Your task to perform on an android device: Add "logitech g910" to the cart on walmart, then select checkout. Image 0: 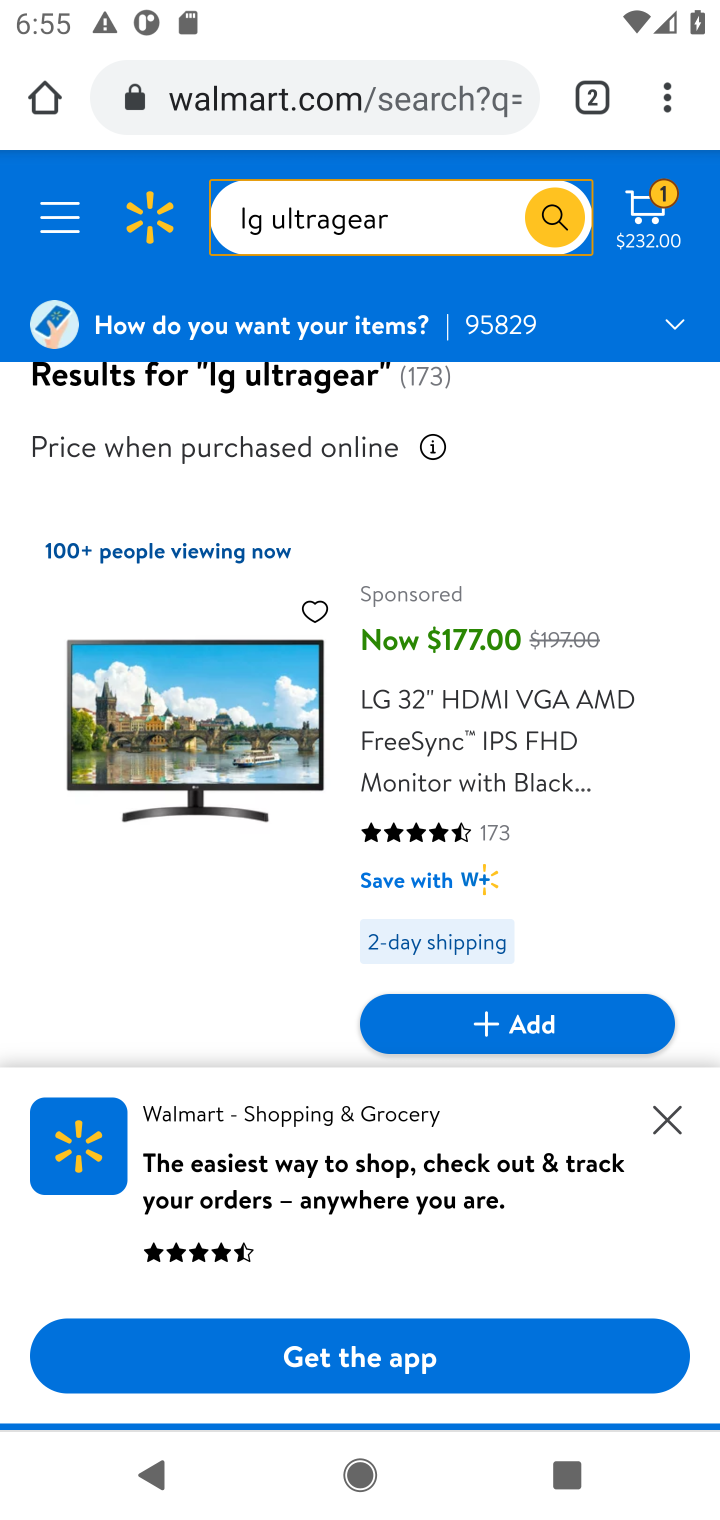
Step 0: click (386, 224)
Your task to perform on an android device: Add "logitech g910" to the cart on walmart, then select checkout. Image 1: 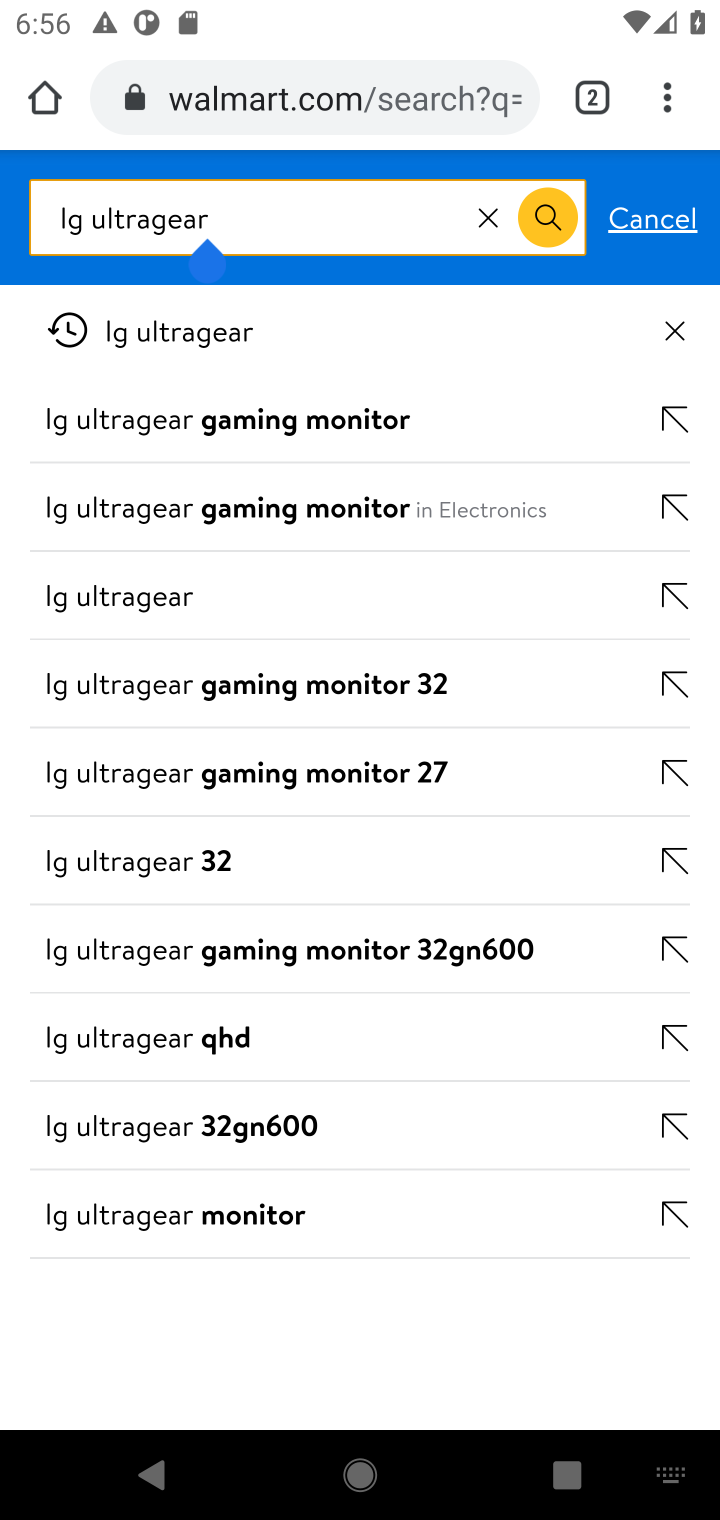
Step 1: click (485, 221)
Your task to perform on an android device: Add "logitech g910" to the cart on walmart, then select checkout. Image 2: 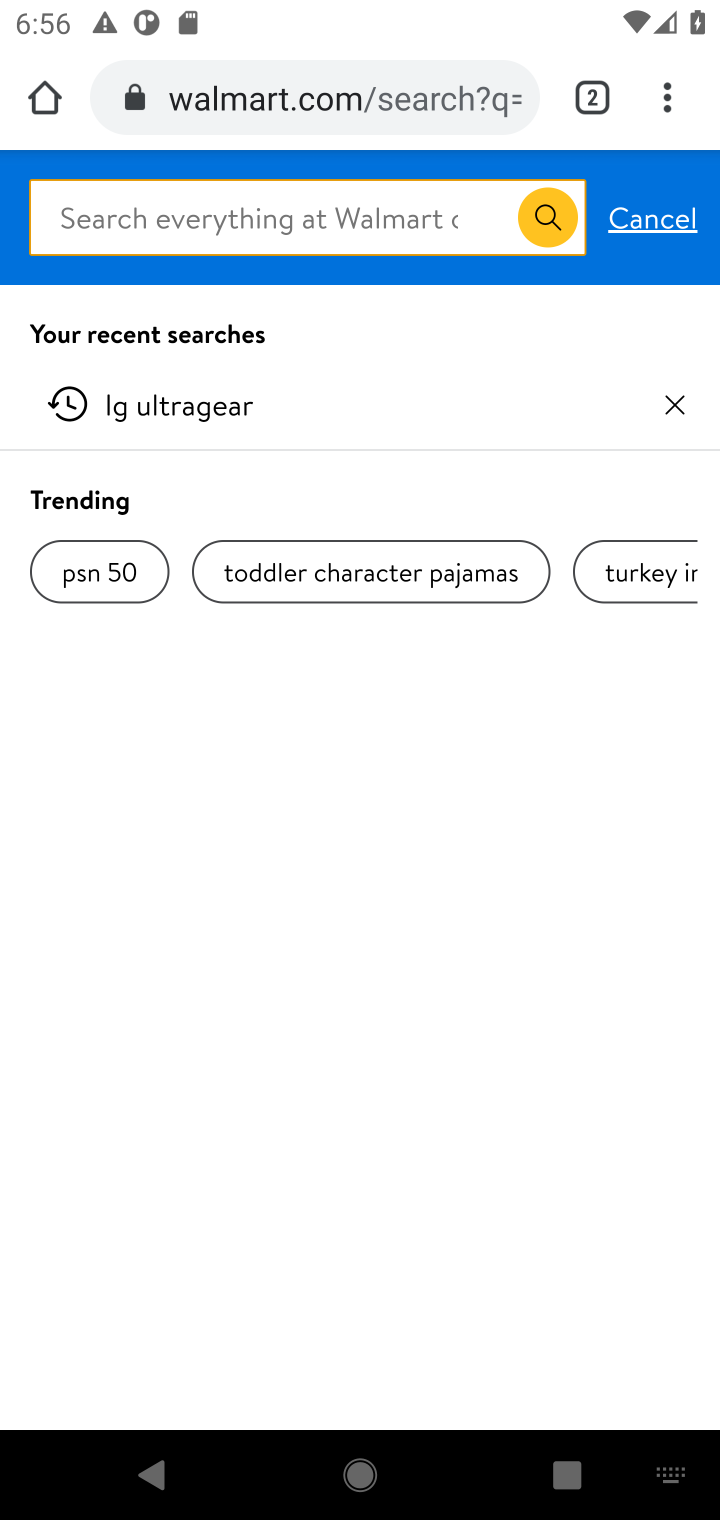
Step 2: type "logitech g910"
Your task to perform on an android device: Add "logitech g910" to the cart on walmart, then select checkout. Image 3: 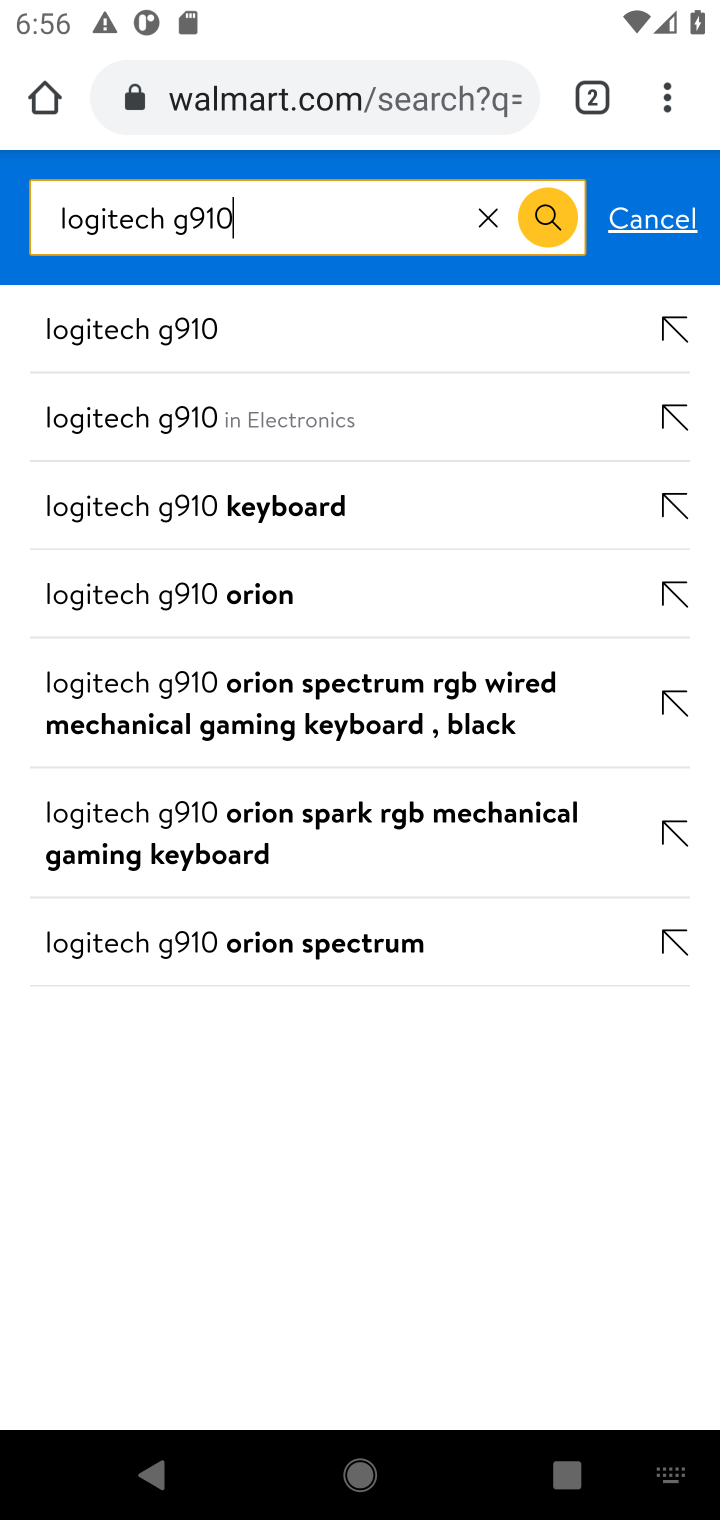
Step 3: click (98, 336)
Your task to perform on an android device: Add "logitech g910" to the cart on walmart, then select checkout. Image 4: 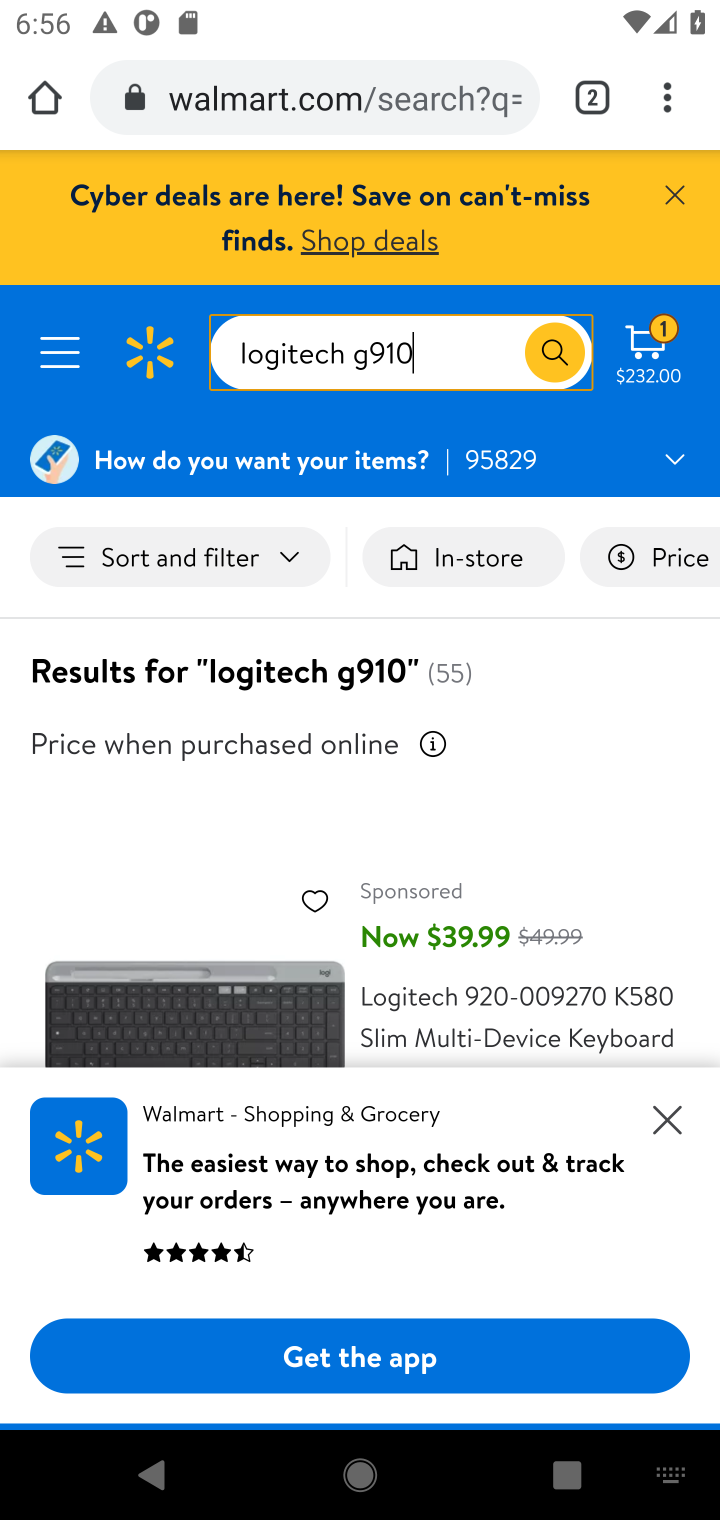
Step 4: drag from (189, 801) to (209, 361)
Your task to perform on an android device: Add "logitech g910" to the cart on walmart, then select checkout. Image 5: 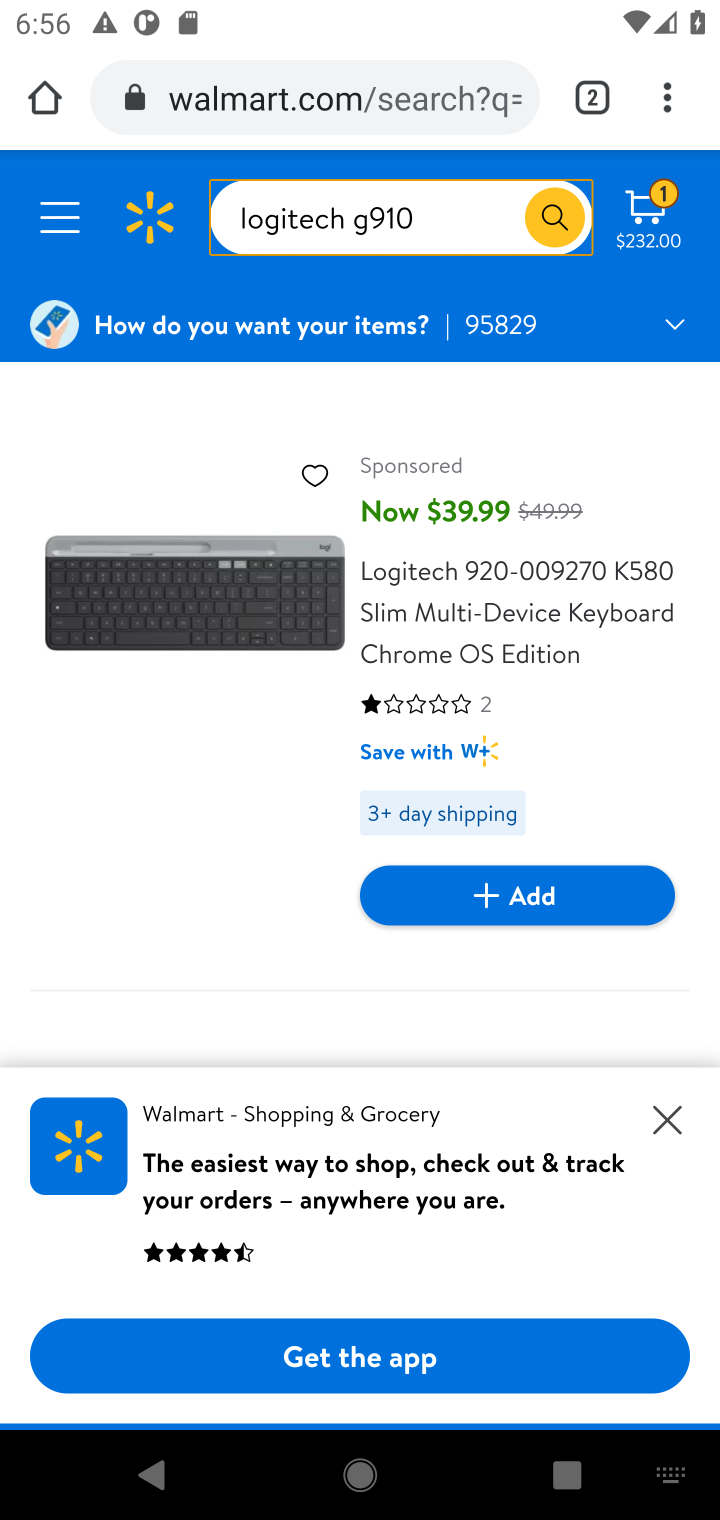
Step 5: drag from (284, 923) to (304, 422)
Your task to perform on an android device: Add "logitech g910" to the cart on walmart, then select checkout. Image 6: 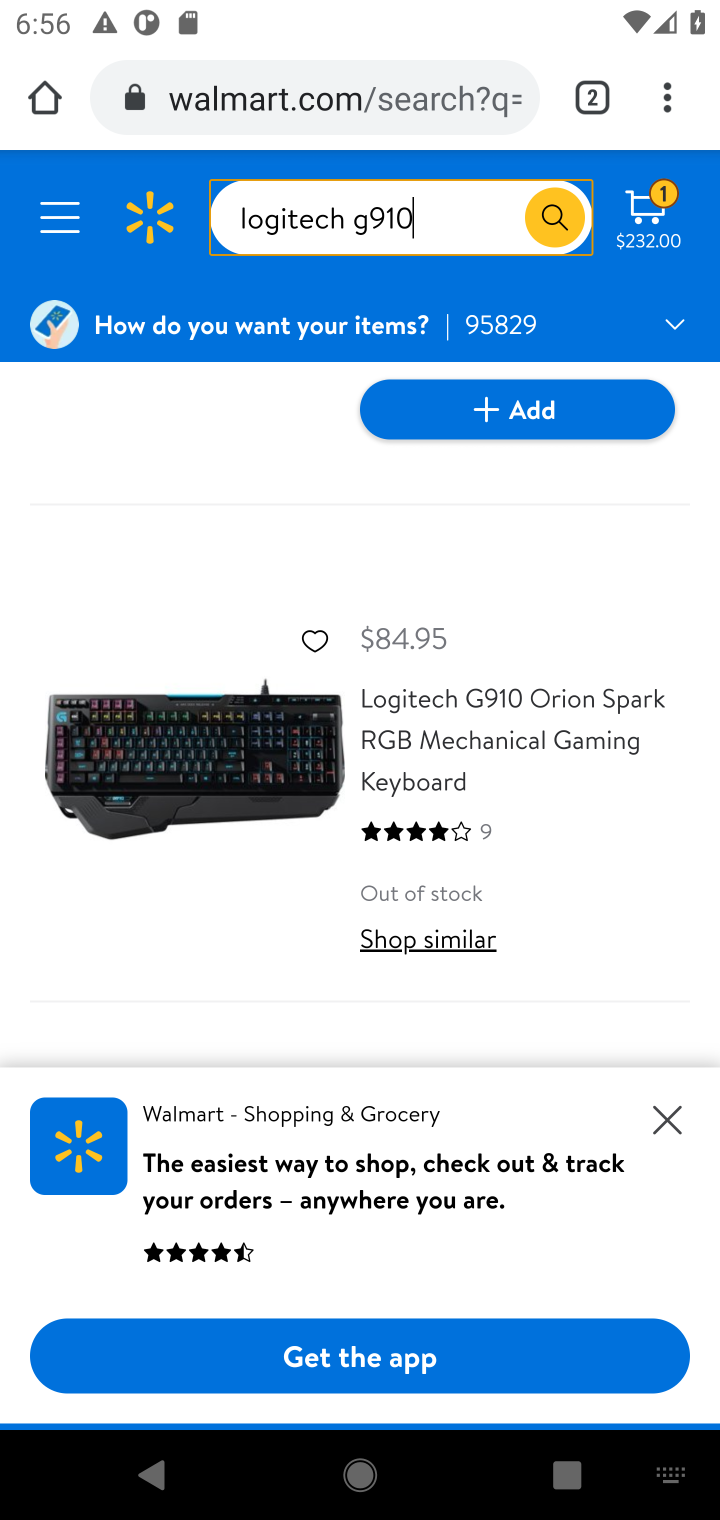
Step 6: drag from (253, 823) to (261, 636)
Your task to perform on an android device: Add "logitech g910" to the cart on walmart, then select checkout. Image 7: 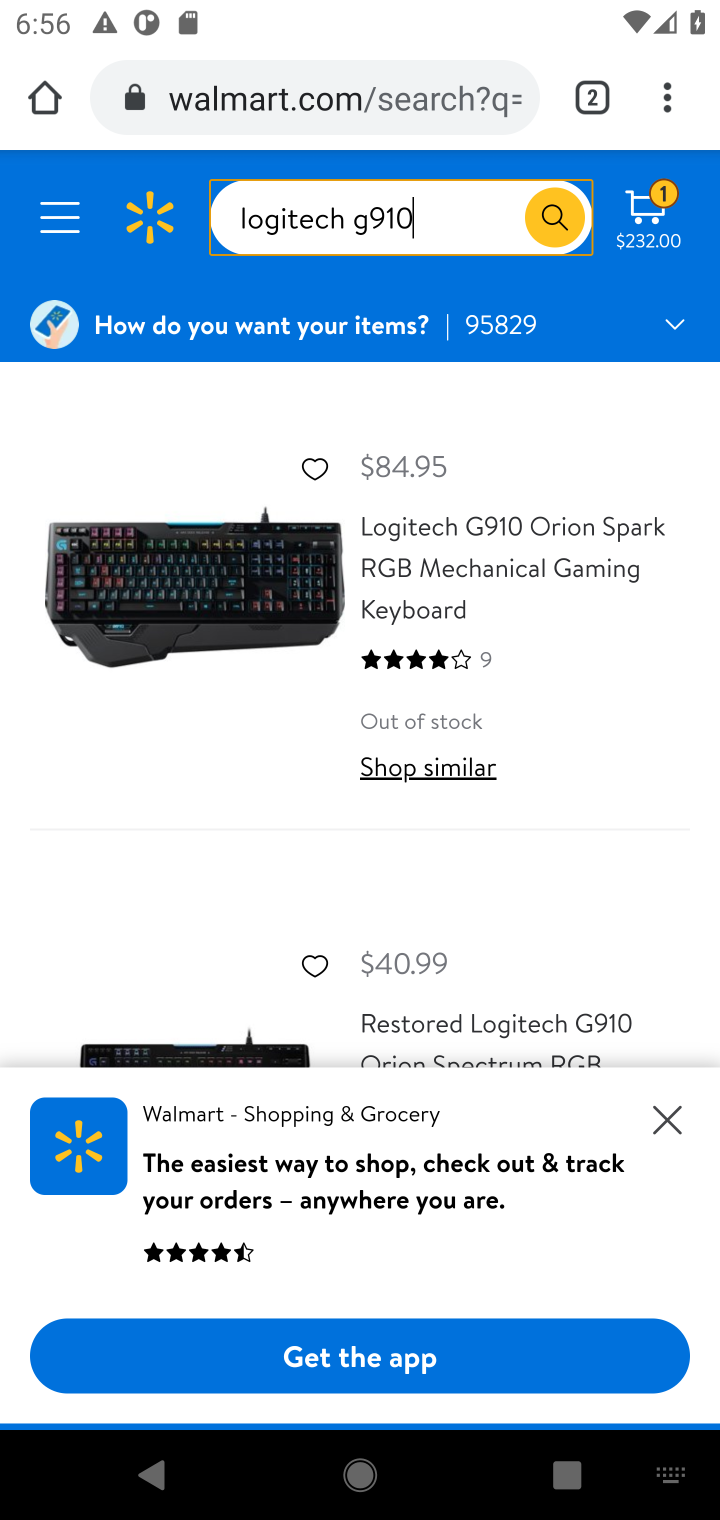
Step 7: drag from (203, 842) to (221, 428)
Your task to perform on an android device: Add "logitech g910" to the cart on walmart, then select checkout. Image 8: 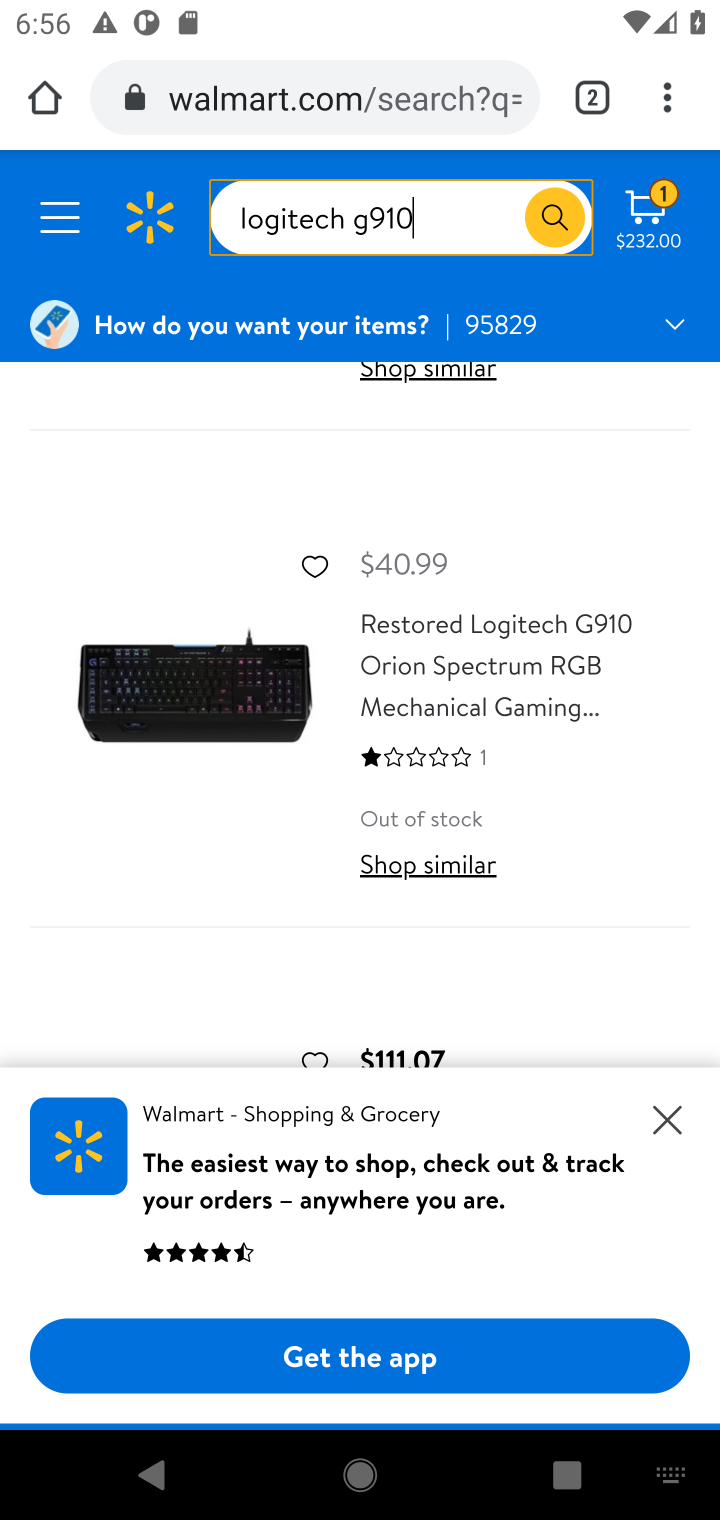
Step 8: drag from (172, 930) to (204, 601)
Your task to perform on an android device: Add "logitech g910" to the cart on walmart, then select checkout. Image 9: 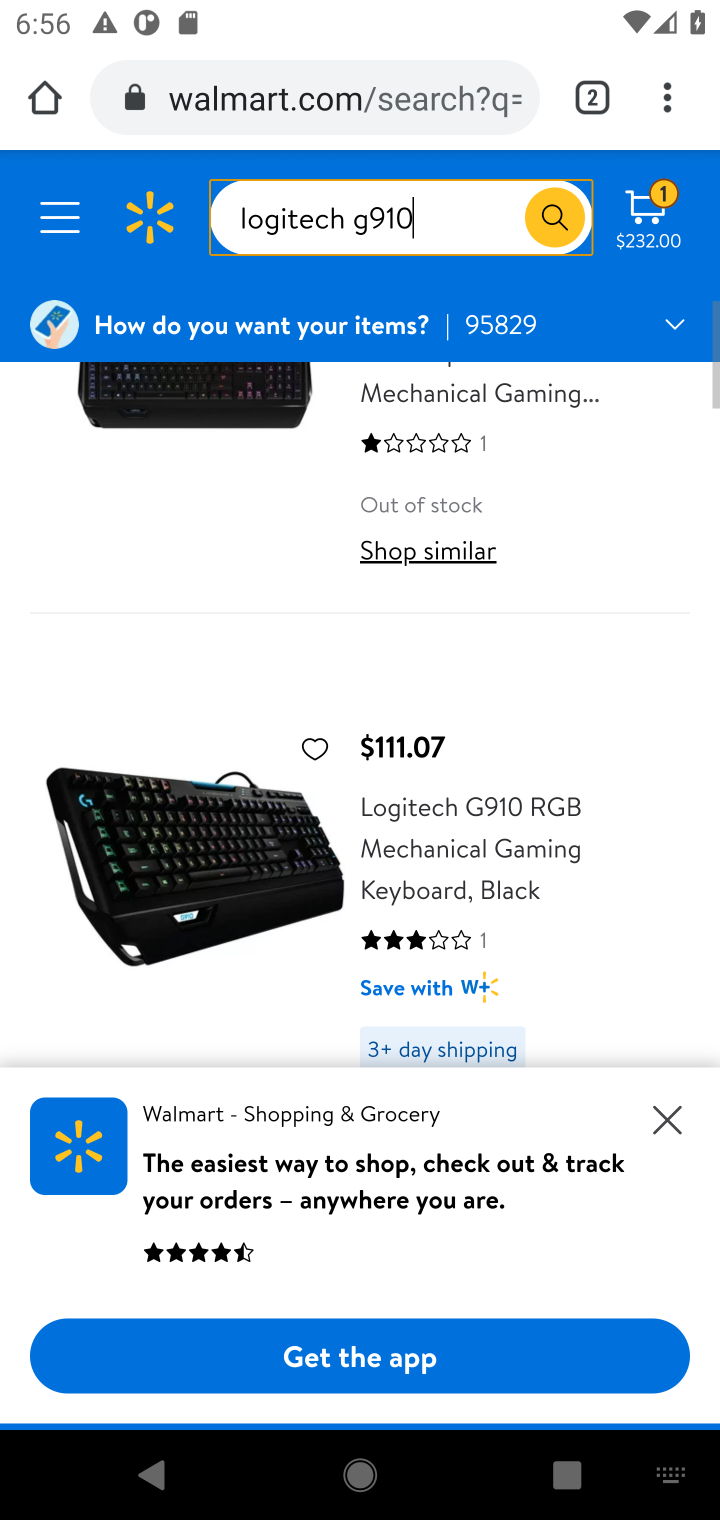
Step 9: drag from (201, 927) to (208, 510)
Your task to perform on an android device: Add "logitech g910" to the cart on walmart, then select checkout. Image 10: 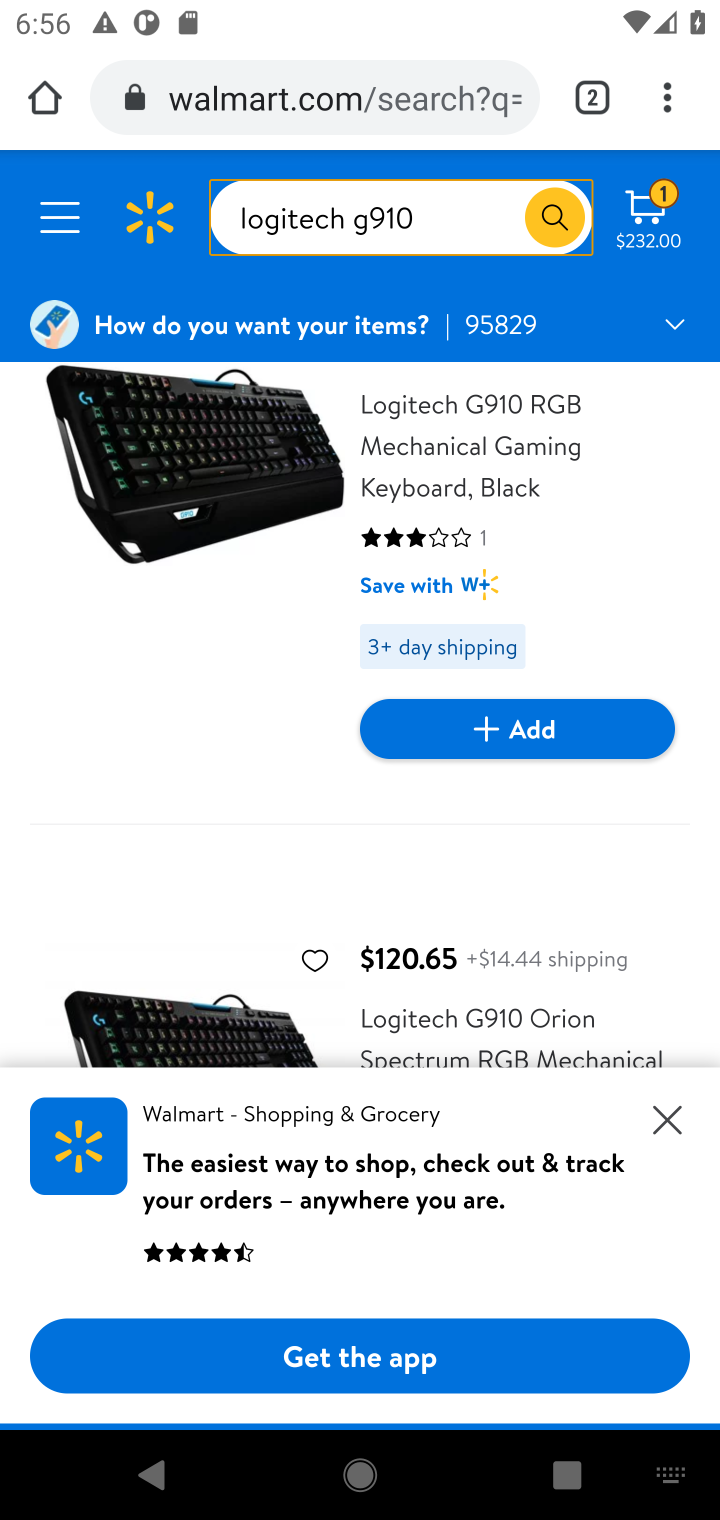
Step 10: click (513, 729)
Your task to perform on an android device: Add "logitech g910" to the cart on walmart, then select checkout. Image 11: 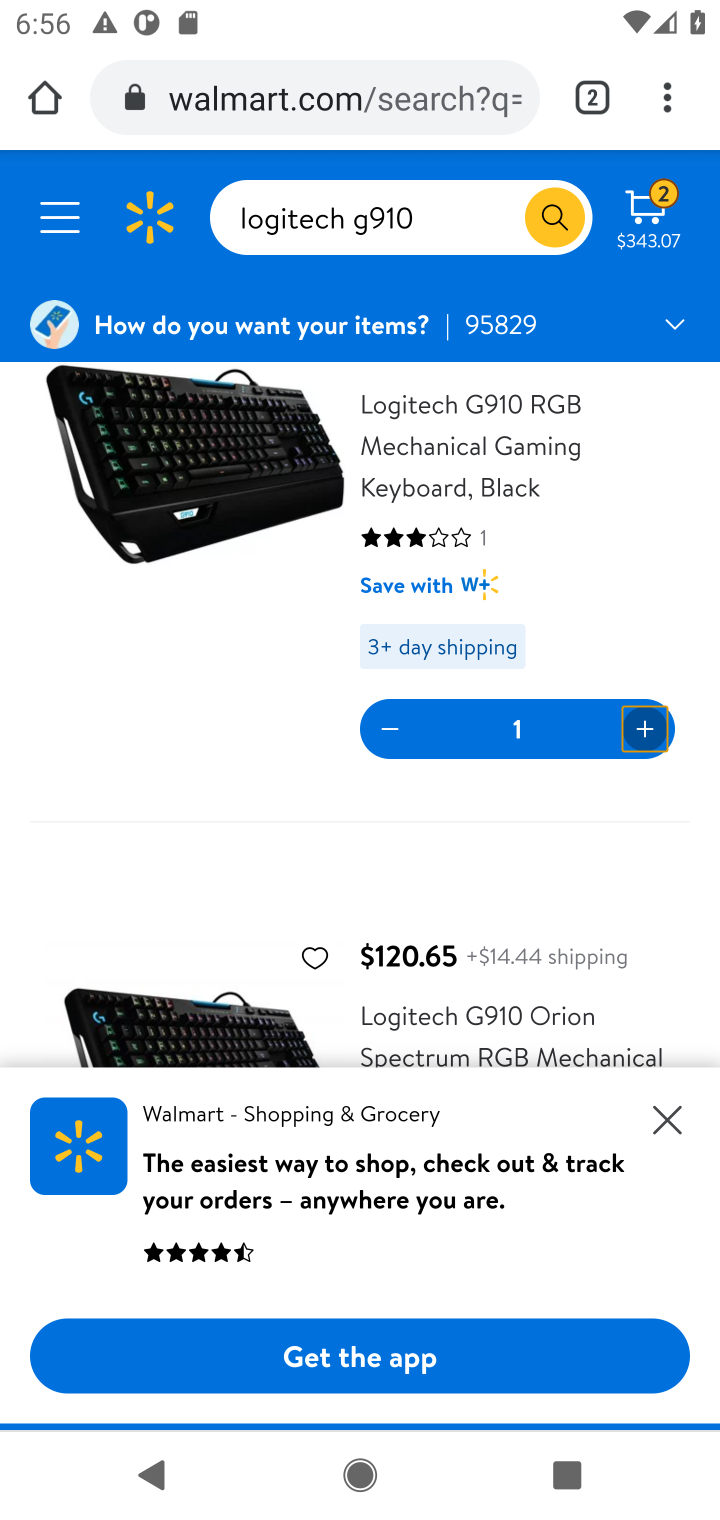
Step 11: click (643, 227)
Your task to perform on an android device: Add "logitech g910" to the cart on walmart, then select checkout. Image 12: 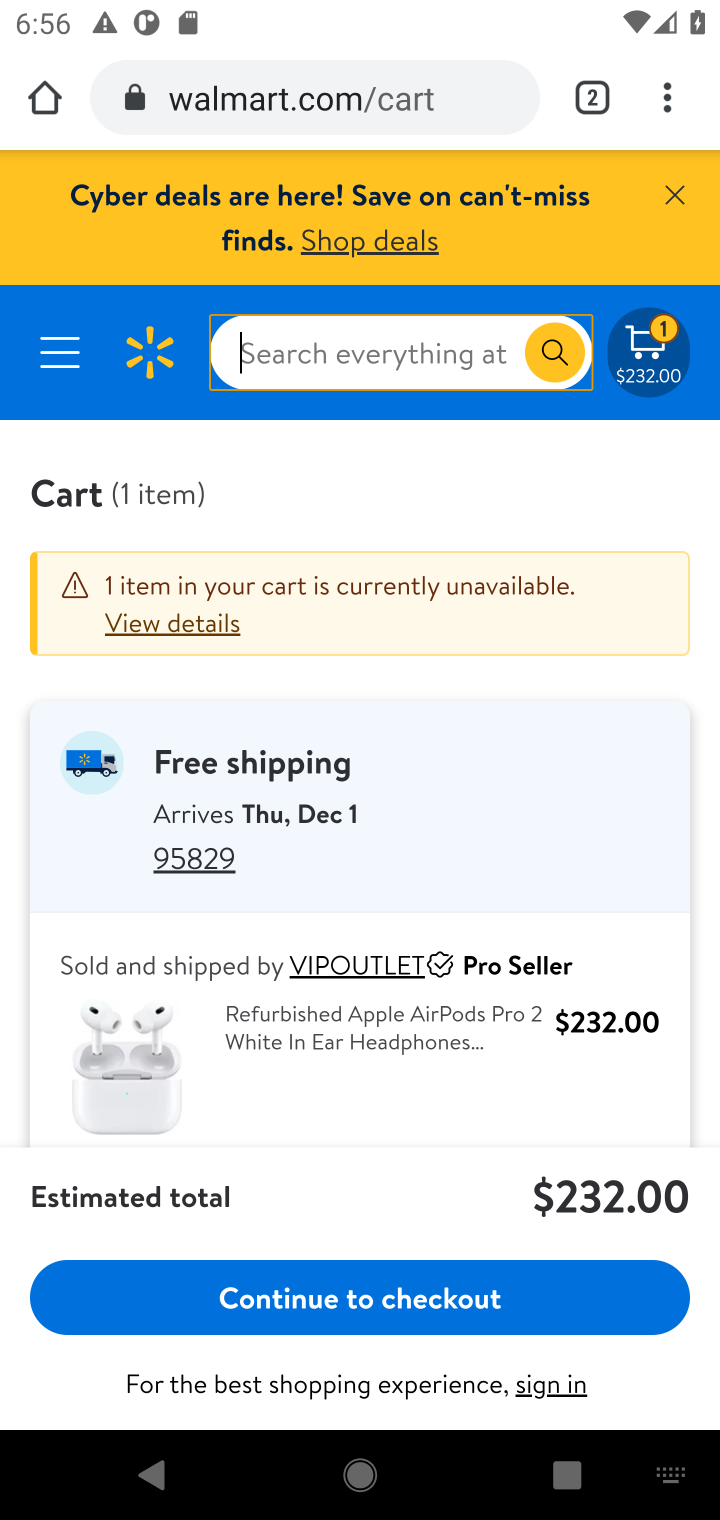
Step 12: click (364, 1302)
Your task to perform on an android device: Add "logitech g910" to the cart on walmart, then select checkout. Image 13: 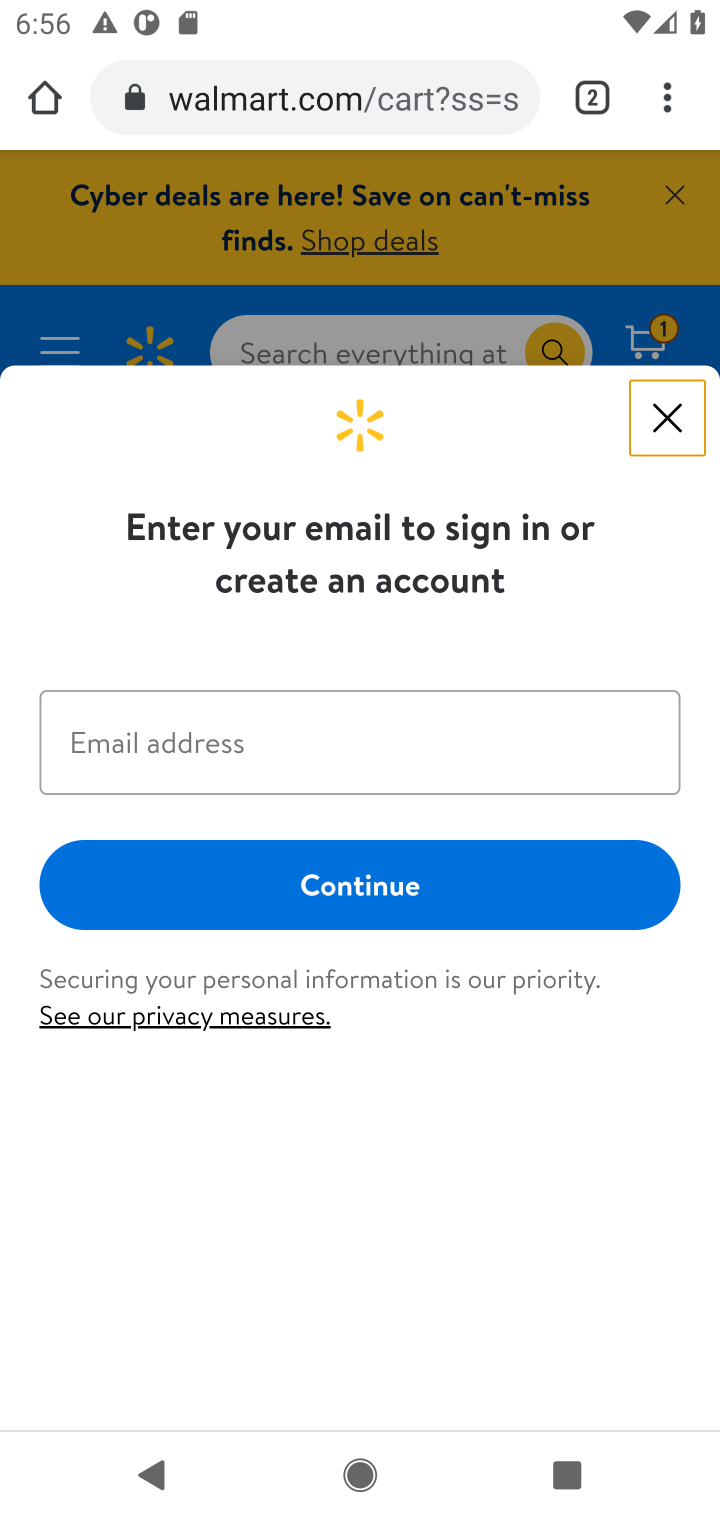
Step 13: task complete